Your task to perform on an android device: Search for flights from Mexico city to Boston Image 0: 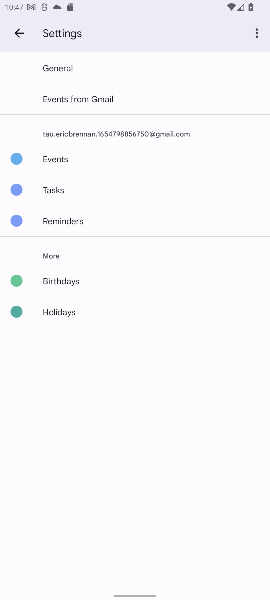
Step 0: press home button
Your task to perform on an android device: Search for flights from Mexico city to Boston Image 1: 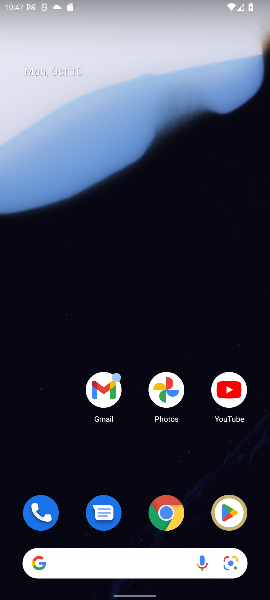
Step 1: click (119, 559)
Your task to perform on an android device: Search for flights from Mexico city to Boston Image 2: 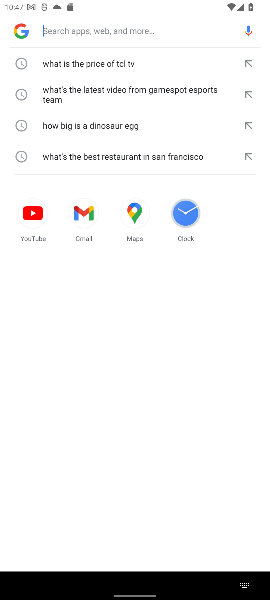
Step 2: type "Search for flights from Mexico city to Boston"
Your task to perform on an android device: Search for flights from Mexico city to Boston Image 3: 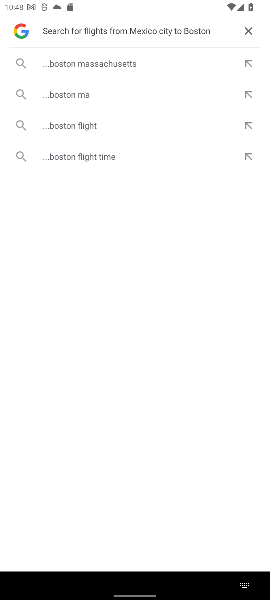
Step 3: click (58, 95)
Your task to perform on an android device: Search for flights from Mexico city to Boston Image 4: 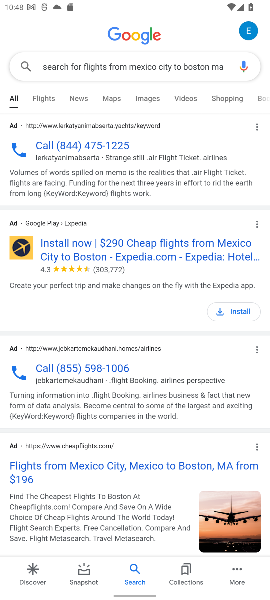
Step 4: task complete